Your task to perform on an android device: Do I have any events tomorrow? Image 0: 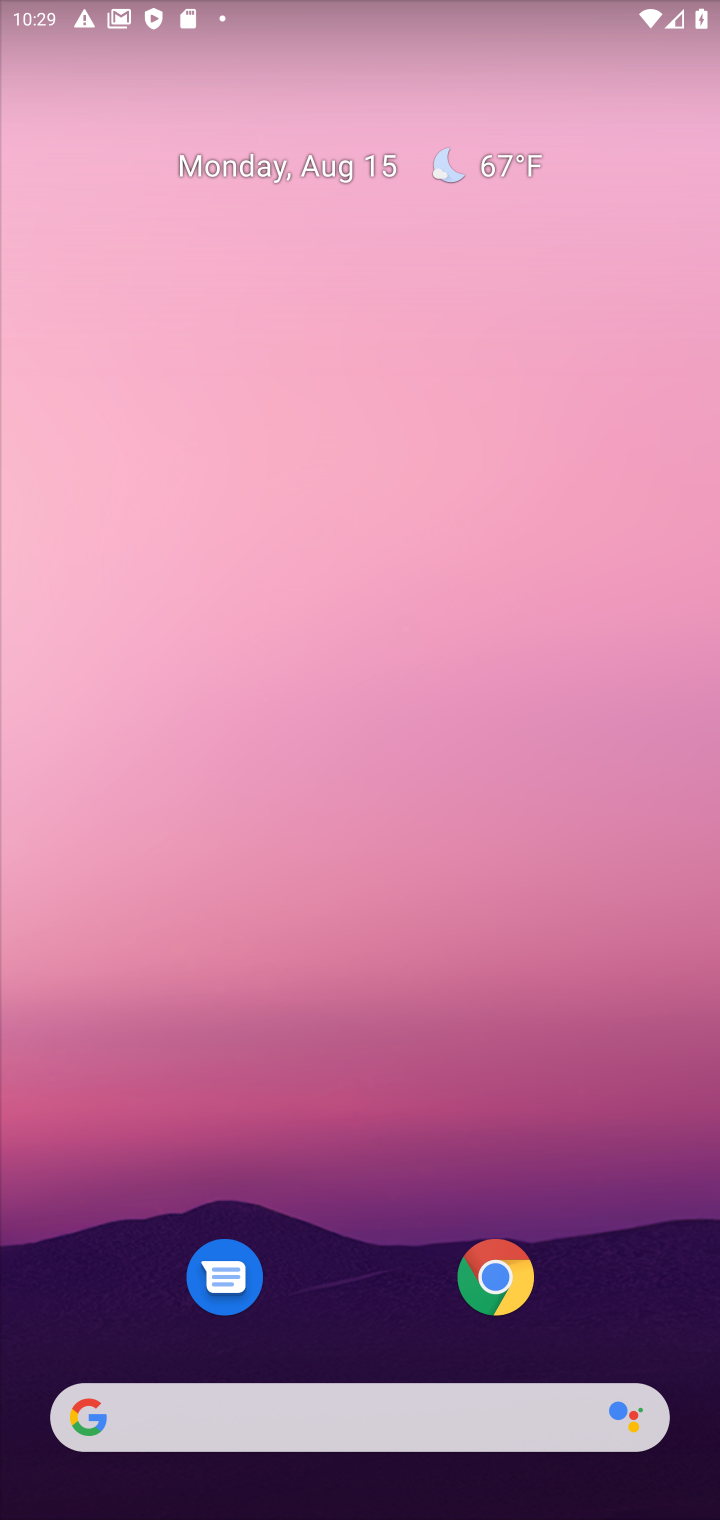
Step 0: drag from (419, 1348) to (198, 95)
Your task to perform on an android device: Do I have any events tomorrow? Image 1: 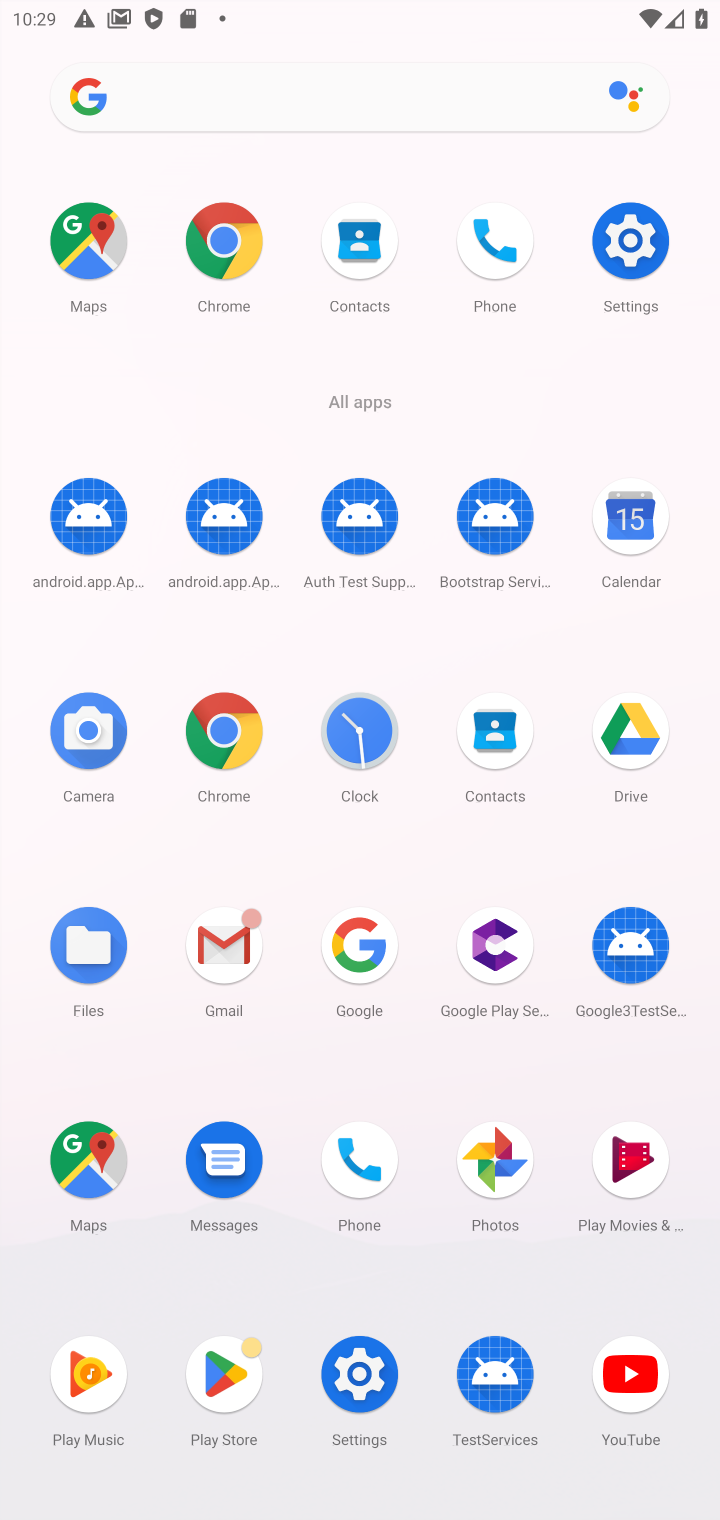
Step 1: click (600, 560)
Your task to perform on an android device: Do I have any events tomorrow? Image 2: 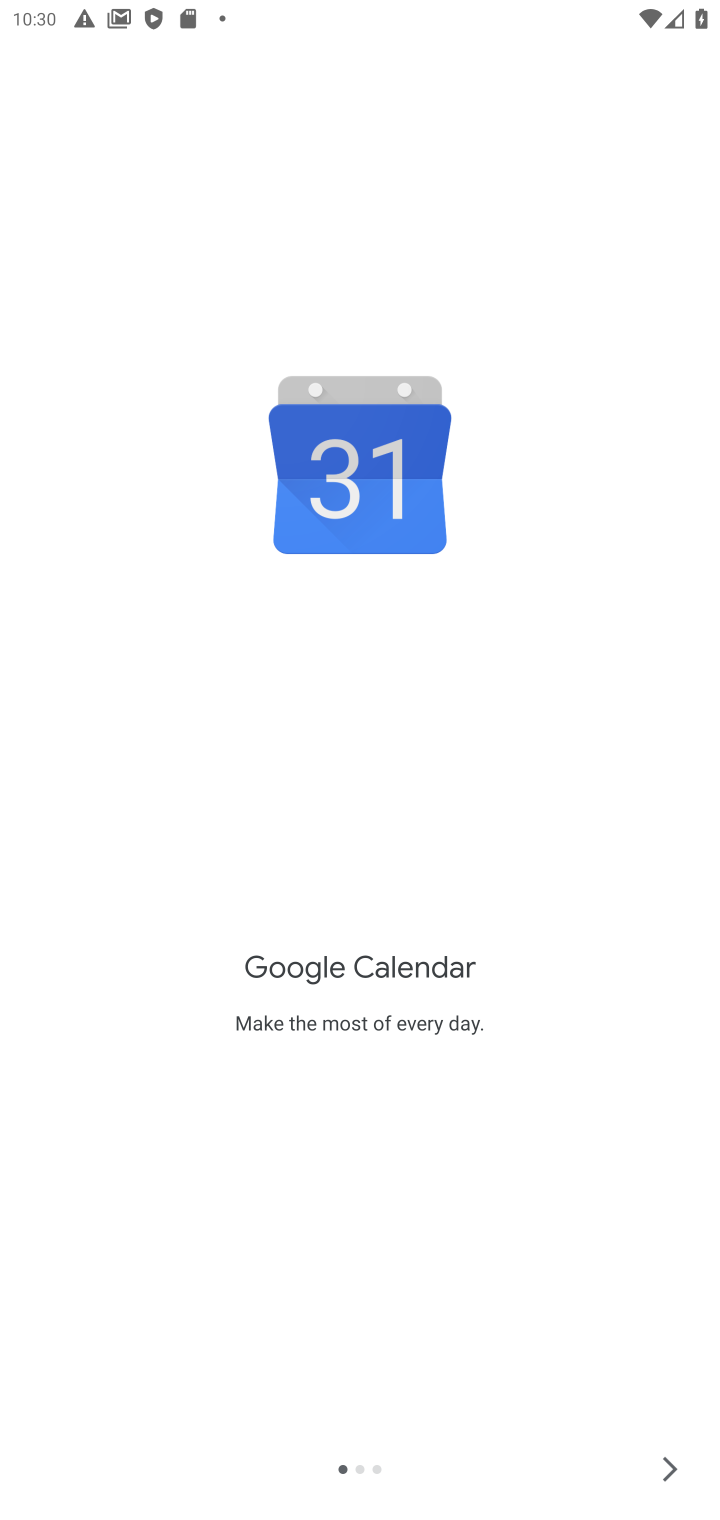
Step 2: click (674, 1482)
Your task to perform on an android device: Do I have any events tomorrow? Image 3: 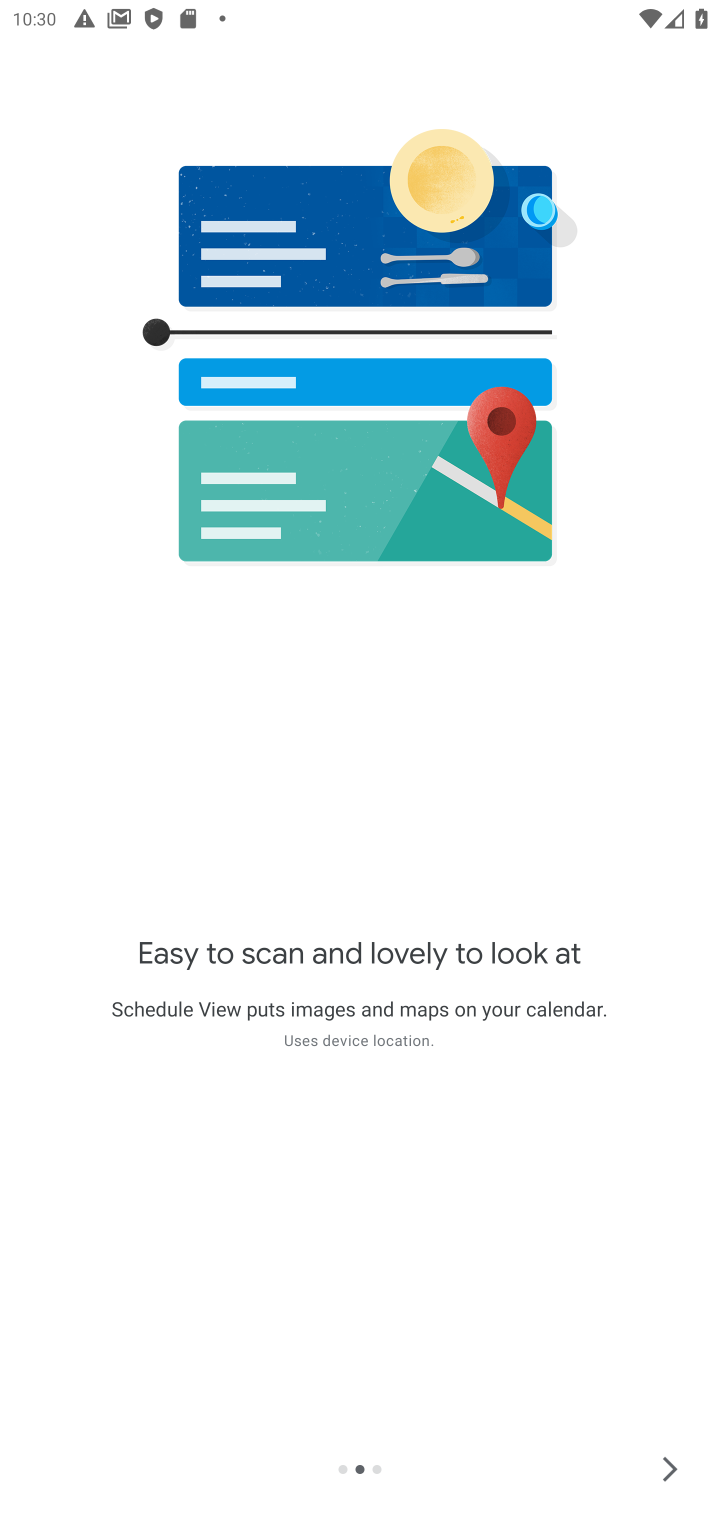
Step 3: click (674, 1482)
Your task to perform on an android device: Do I have any events tomorrow? Image 4: 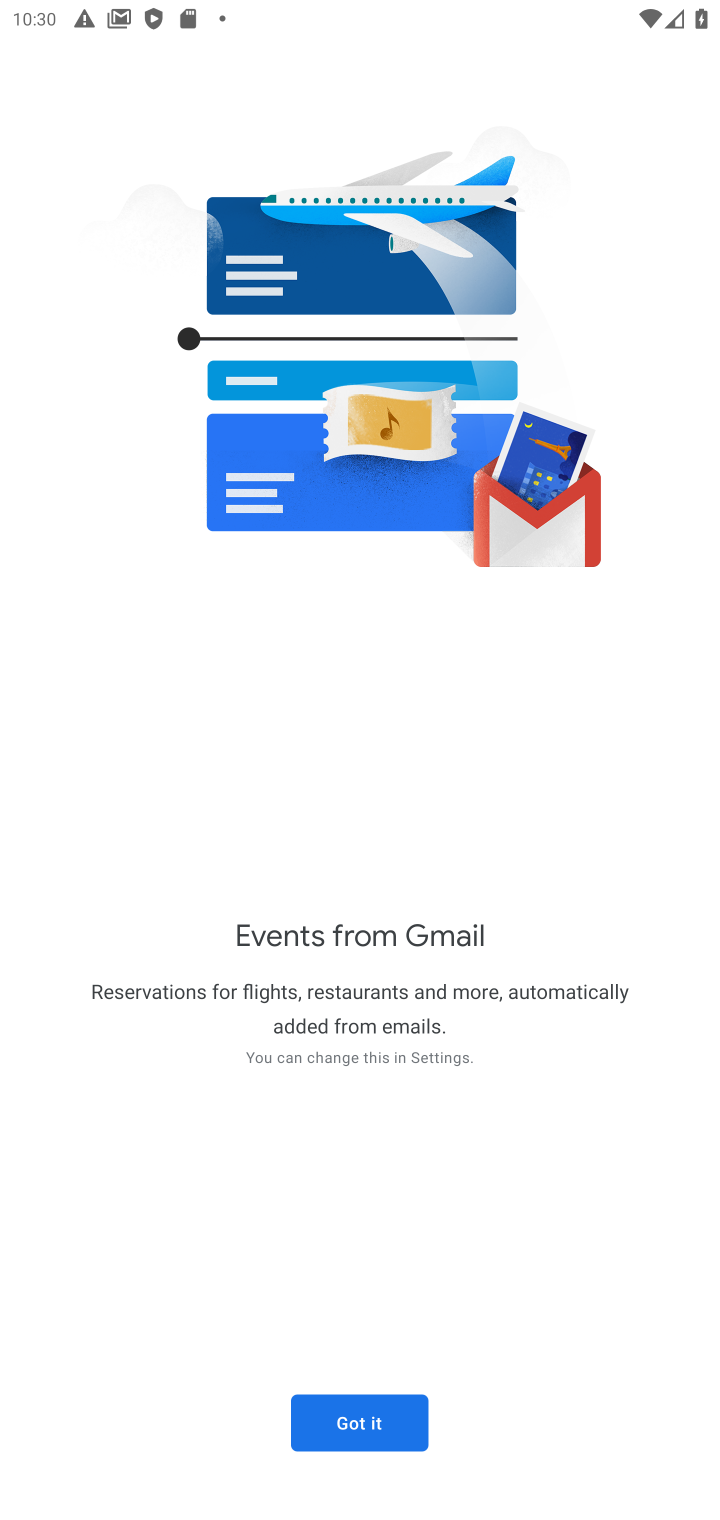
Step 4: click (372, 1423)
Your task to perform on an android device: Do I have any events tomorrow? Image 5: 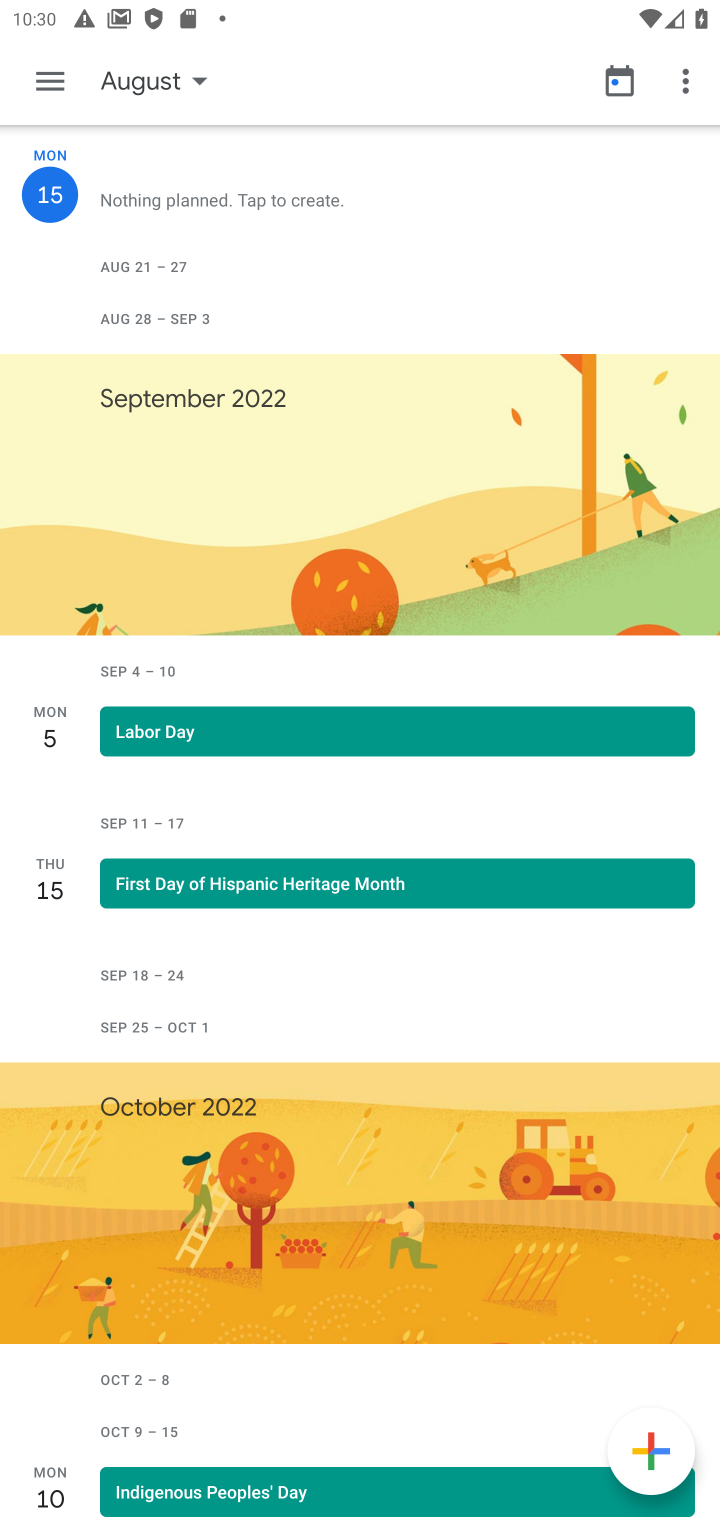
Step 5: click (198, 96)
Your task to perform on an android device: Do I have any events tomorrow? Image 6: 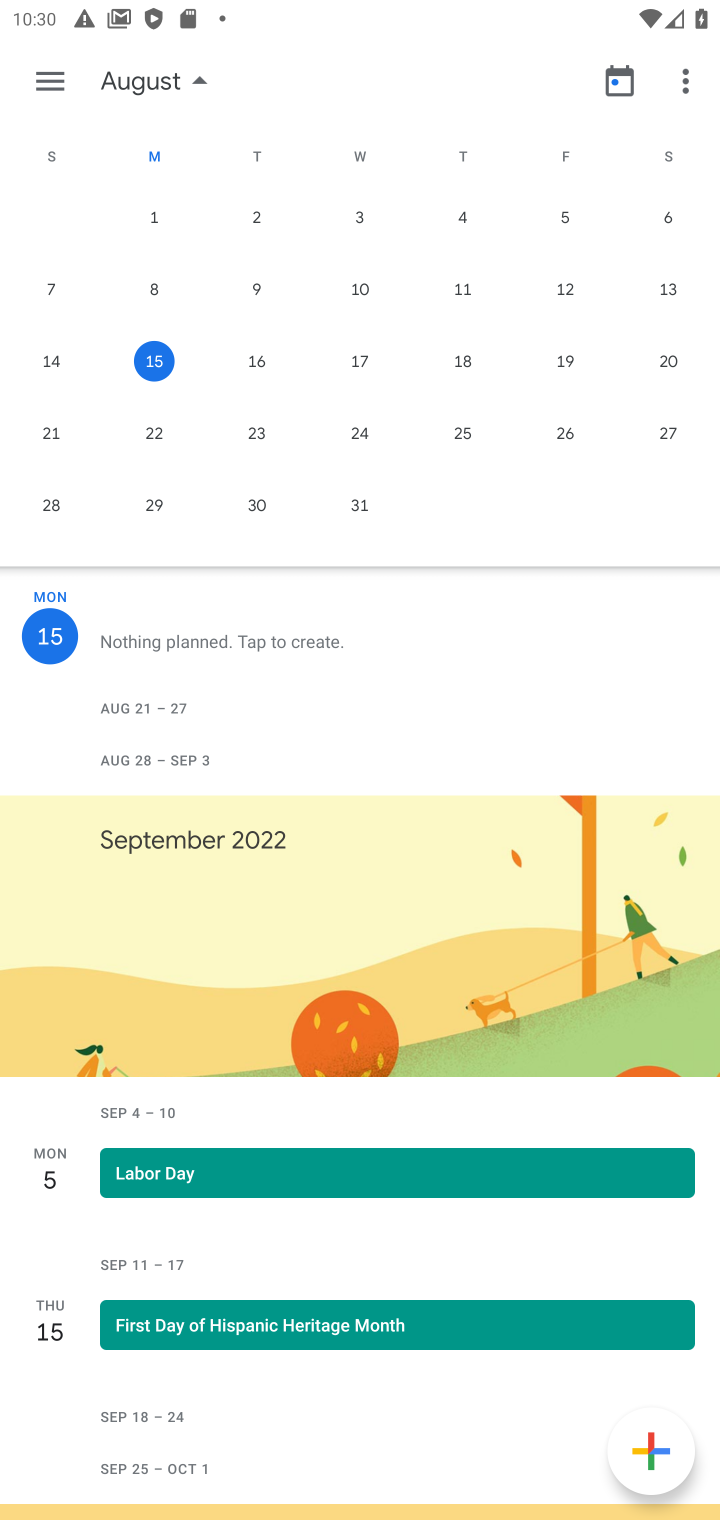
Step 6: click (234, 367)
Your task to perform on an android device: Do I have any events tomorrow? Image 7: 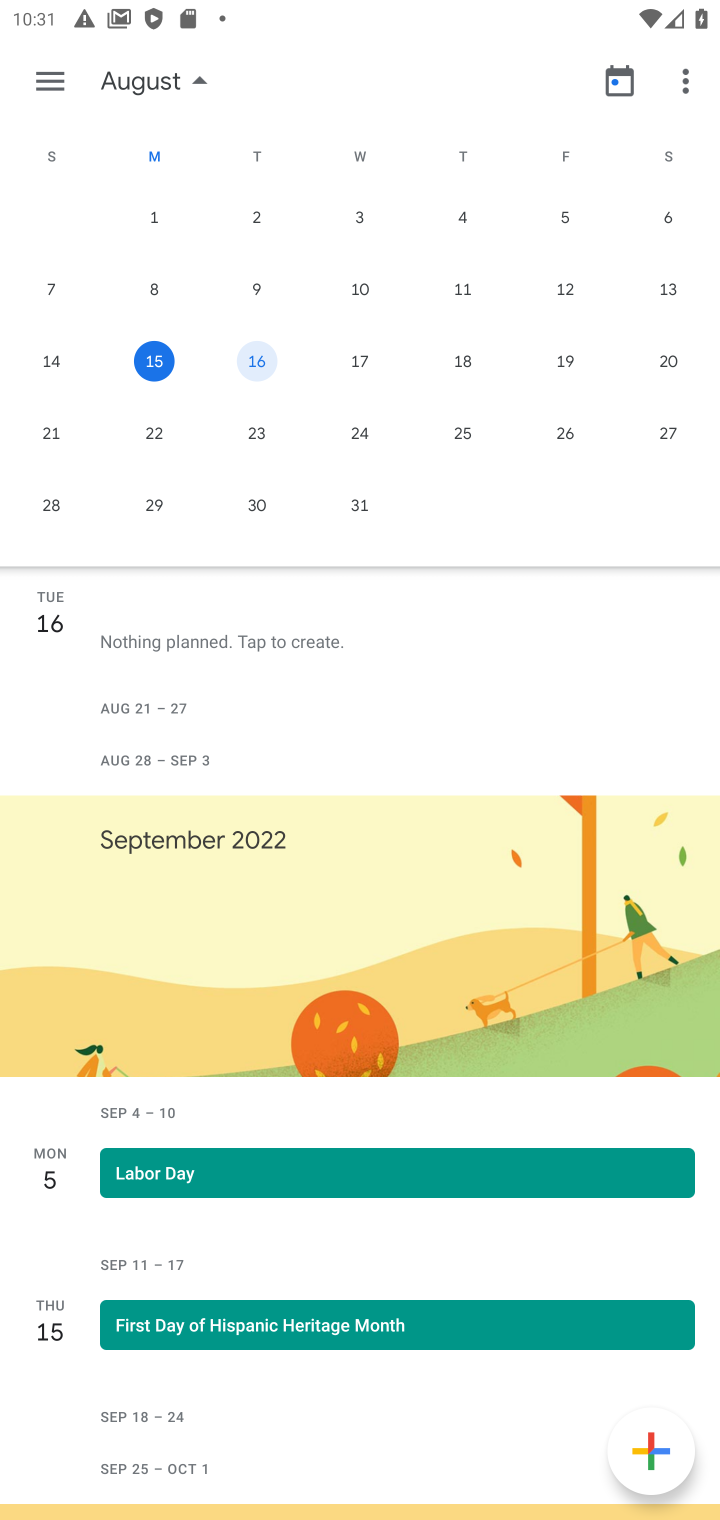
Step 7: task complete